Your task to perform on an android device: turn on notifications settings in the gmail app Image 0: 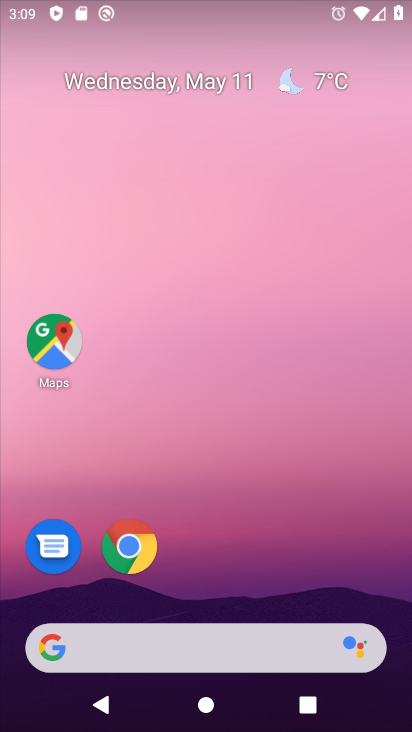
Step 0: drag from (252, 611) to (212, 273)
Your task to perform on an android device: turn on notifications settings in the gmail app Image 1: 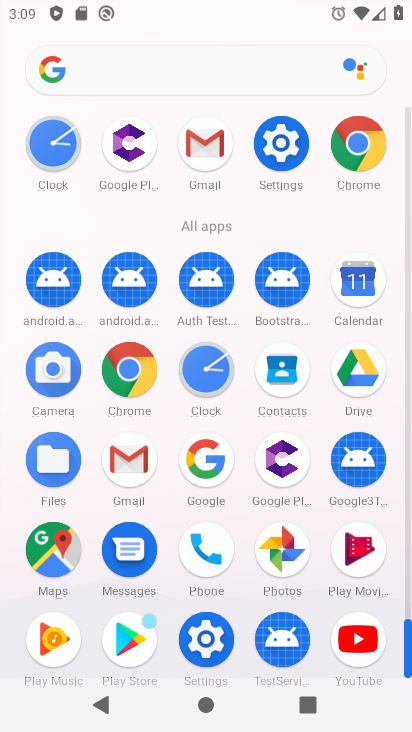
Step 1: click (123, 466)
Your task to perform on an android device: turn on notifications settings in the gmail app Image 2: 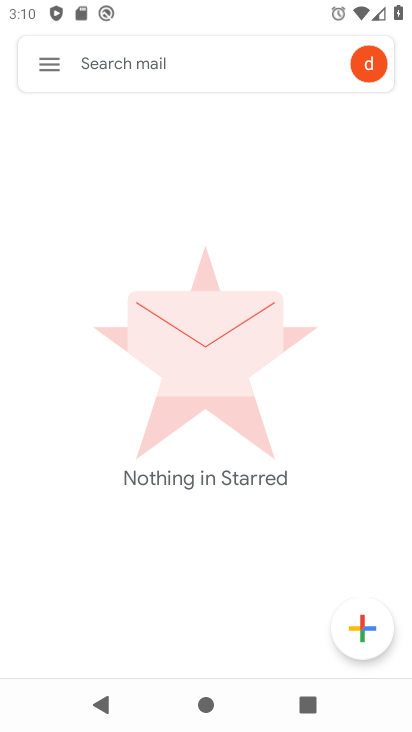
Step 2: click (51, 69)
Your task to perform on an android device: turn on notifications settings in the gmail app Image 3: 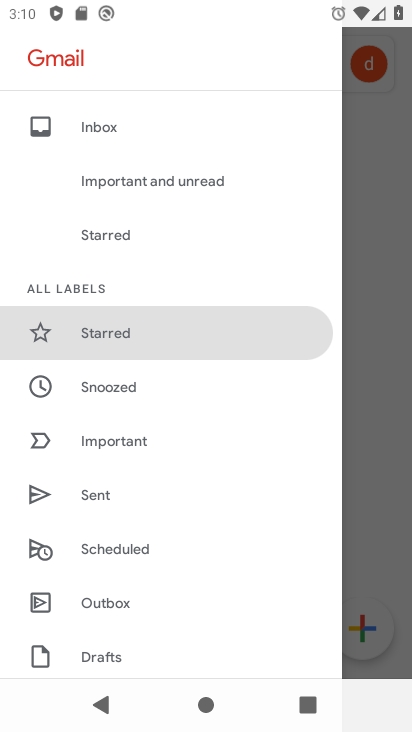
Step 3: drag from (185, 578) to (171, 24)
Your task to perform on an android device: turn on notifications settings in the gmail app Image 4: 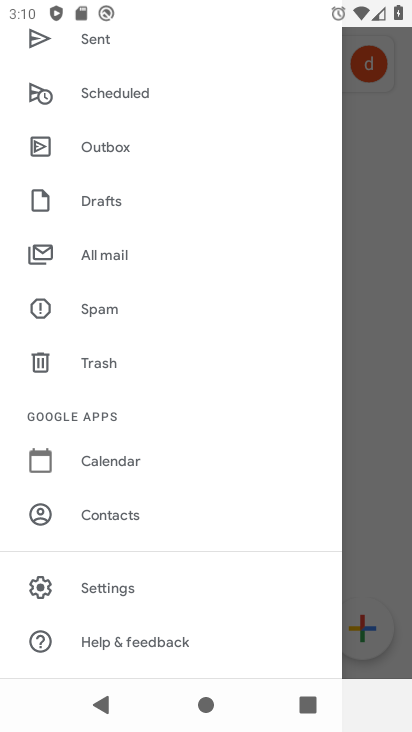
Step 4: click (142, 586)
Your task to perform on an android device: turn on notifications settings in the gmail app Image 5: 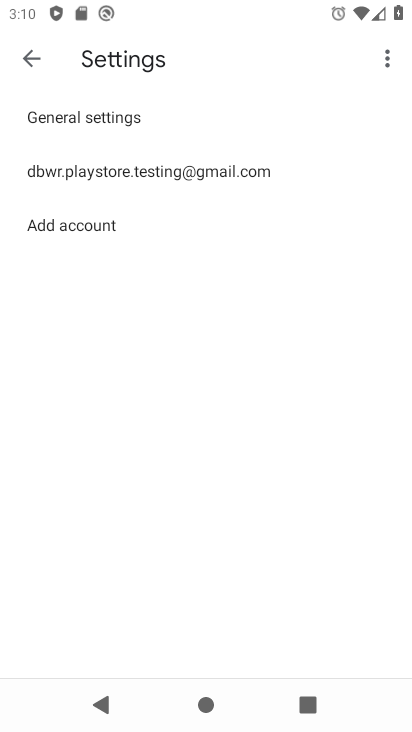
Step 5: click (110, 177)
Your task to perform on an android device: turn on notifications settings in the gmail app Image 6: 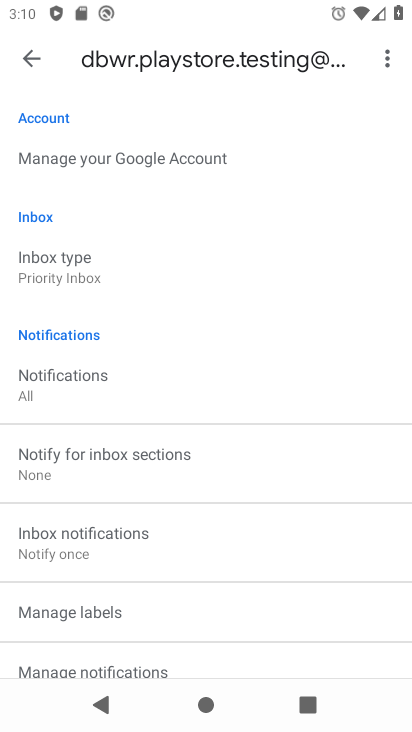
Step 6: click (141, 660)
Your task to perform on an android device: turn on notifications settings in the gmail app Image 7: 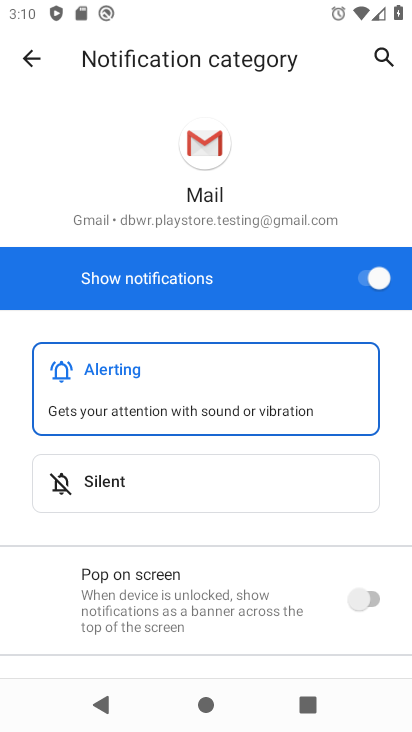
Step 7: task complete